Your task to perform on an android device: Do I have any events this weekend? Image 0: 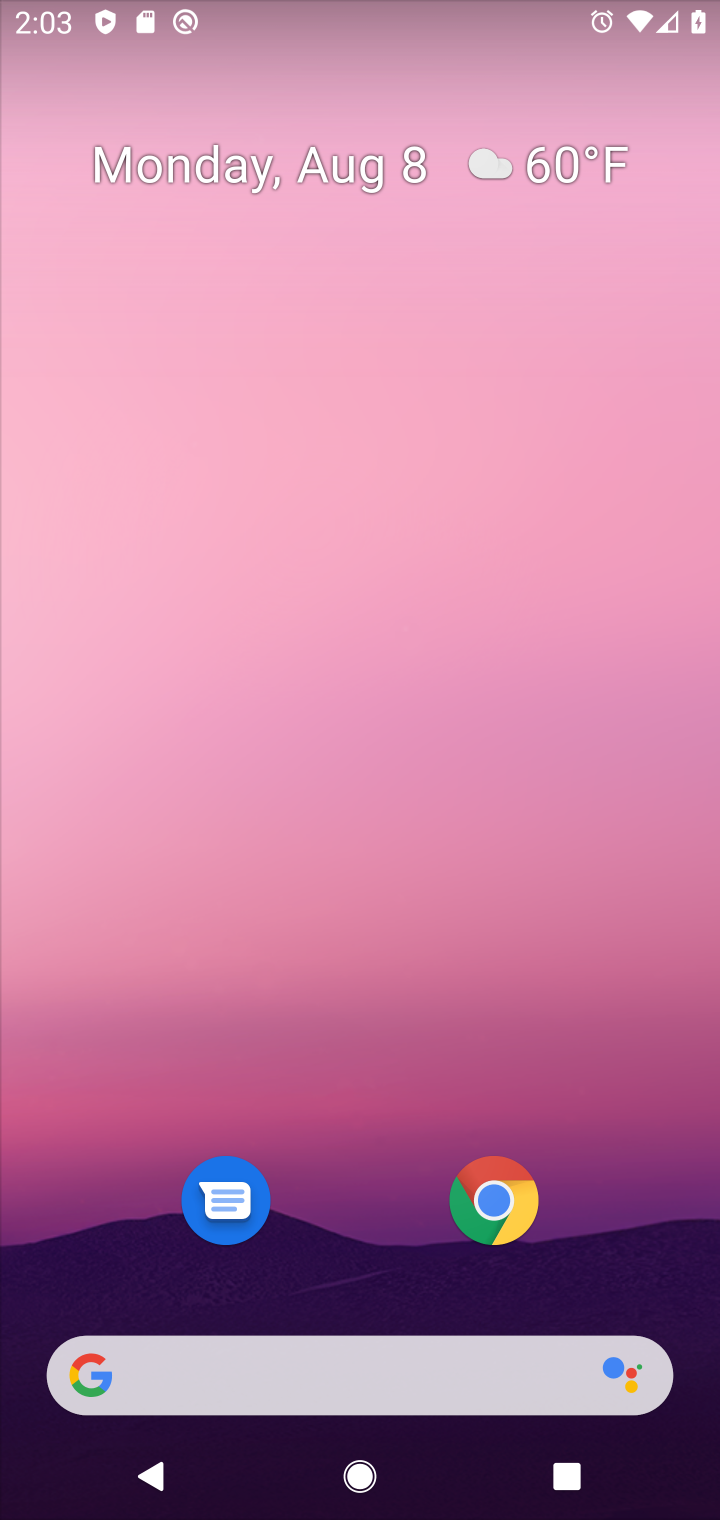
Step 0: press home button
Your task to perform on an android device: Do I have any events this weekend? Image 1: 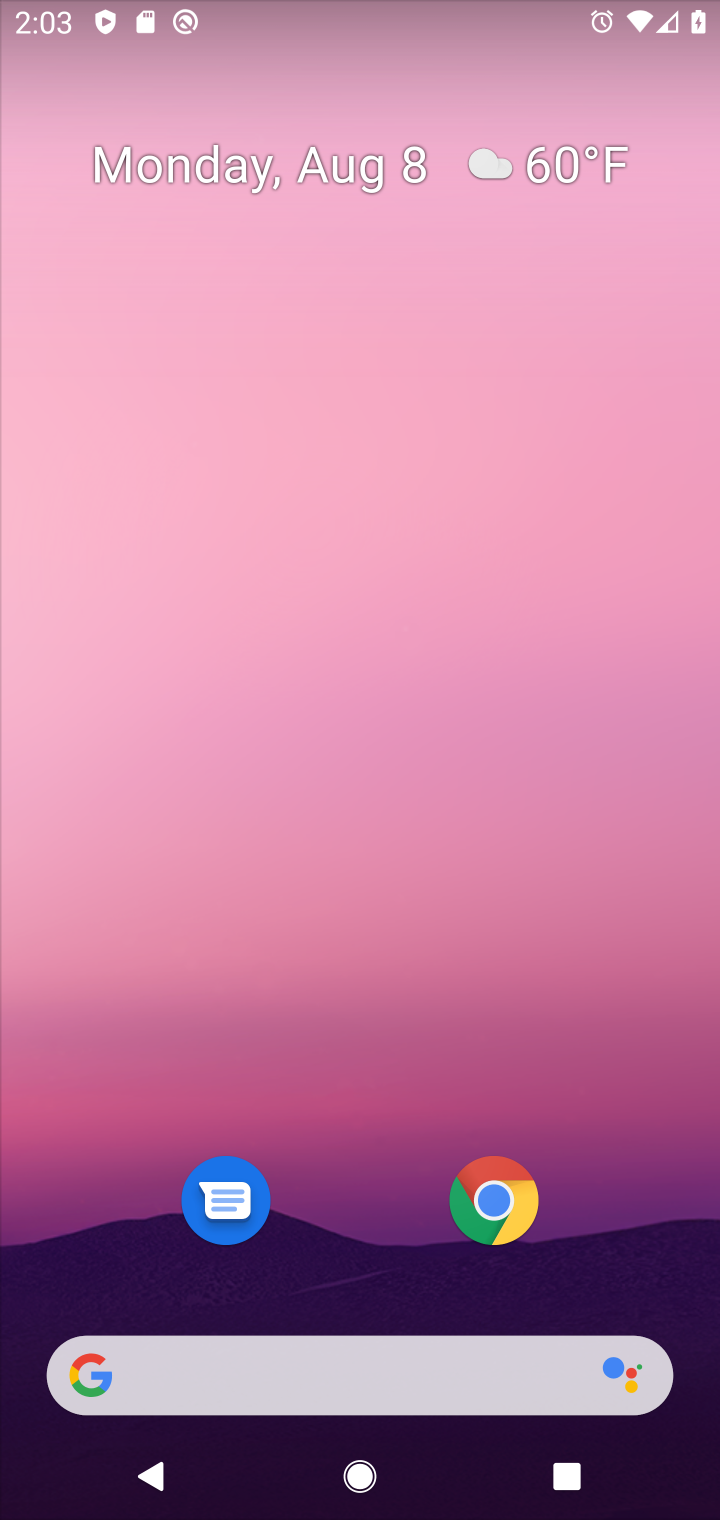
Step 1: drag from (350, 591) to (377, 297)
Your task to perform on an android device: Do I have any events this weekend? Image 2: 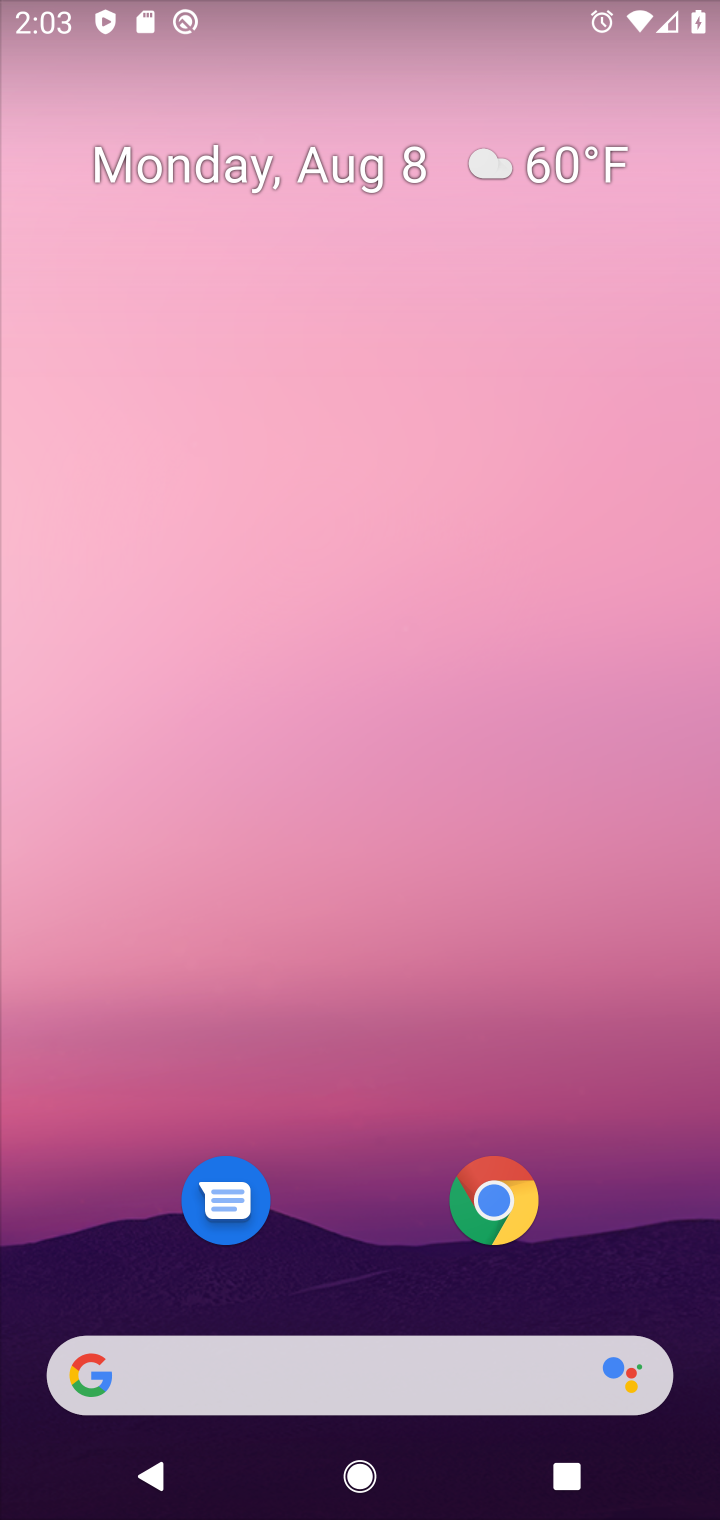
Step 2: drag from (371, 1297) to (371, 0)
Your task to perform on an android device: Do I have any events this weekend? Image 3: 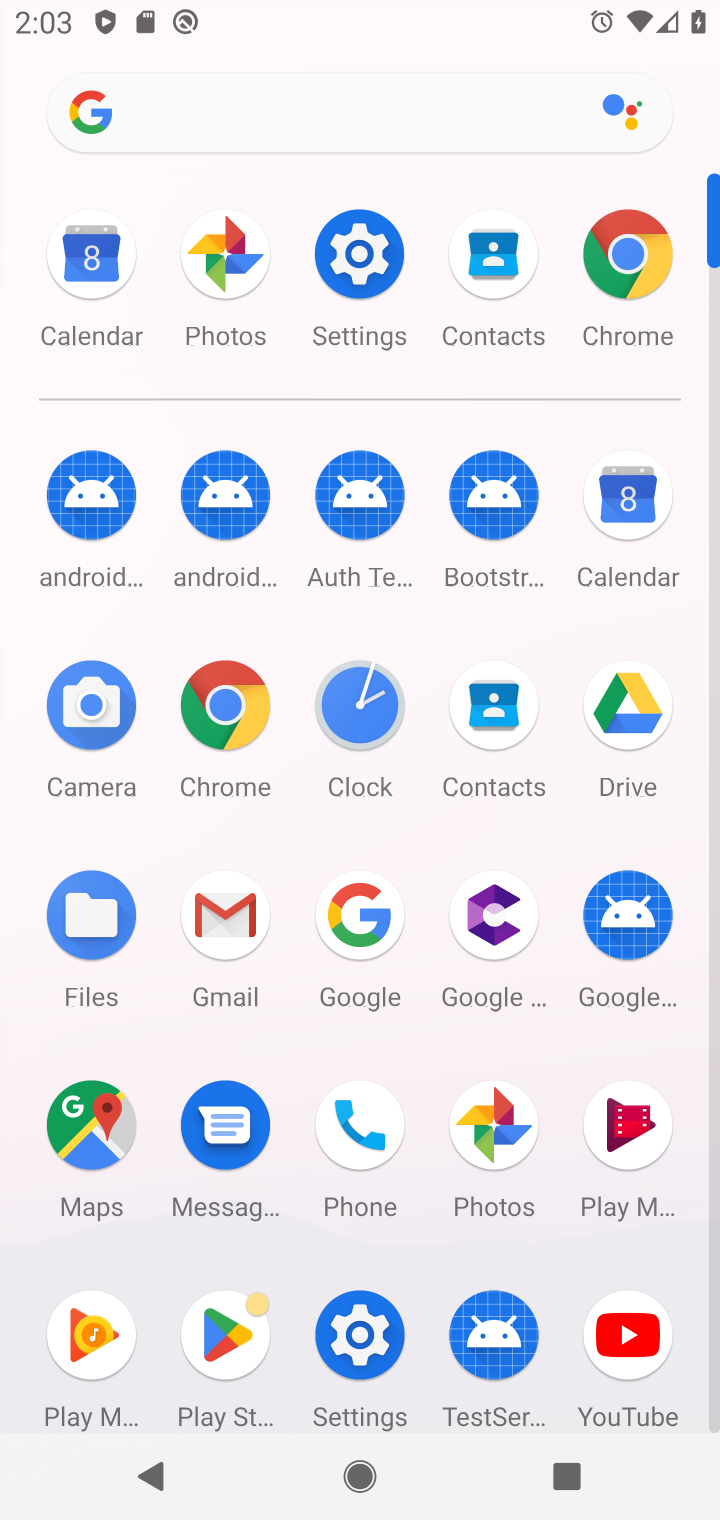
Step 3: click (633, 494)
Your task to perform on an android device: Do I have any events this weekend? Image 4: 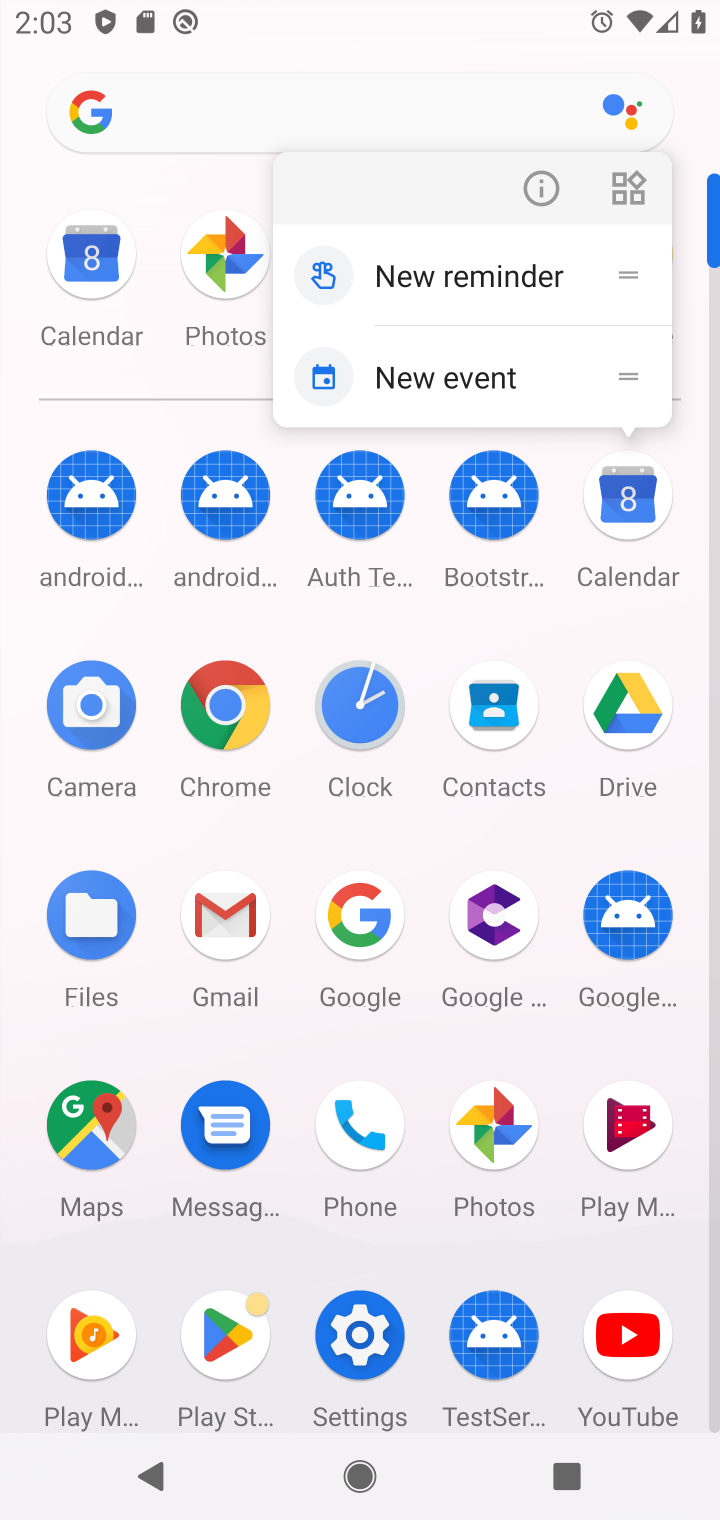
Step 4: click (619, 478)
Your task to perform on an android device: Do I have any events this weekend? Image 5: 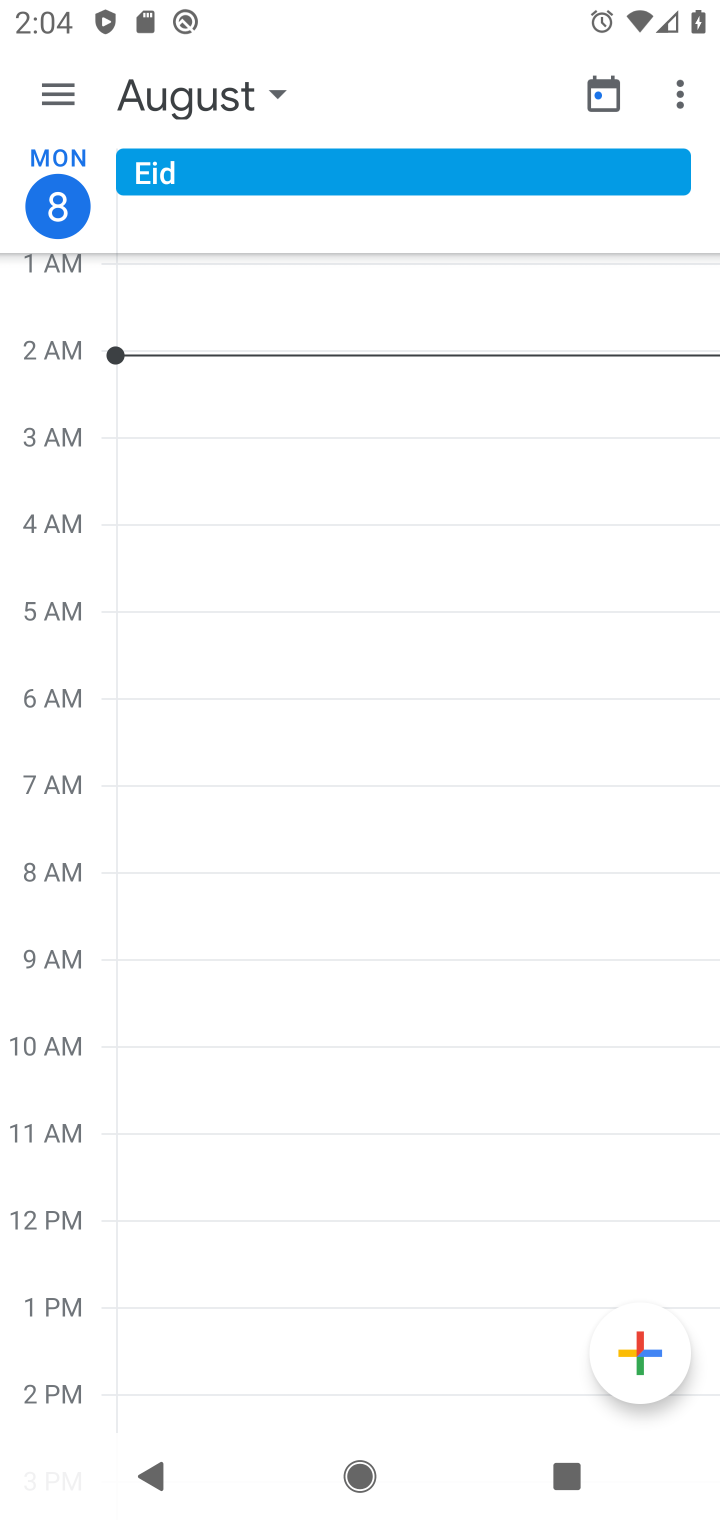
Step 5: click (32, 87)
Your task to perform on an android device: Do I have any events this weekend? Image 6: 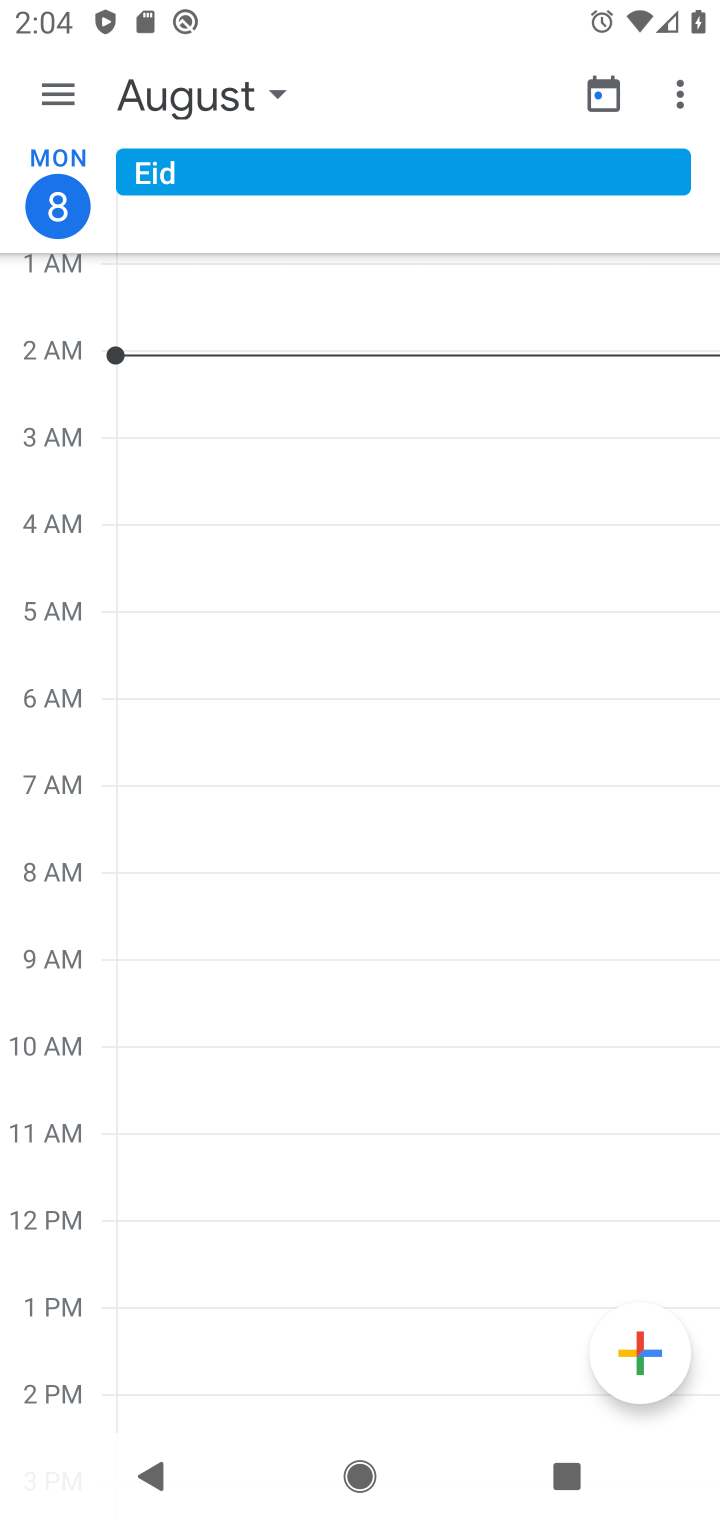
Step 6: click (76, 197)
Your task to perform on an android device: Do I have any events this weekend? Image 7: 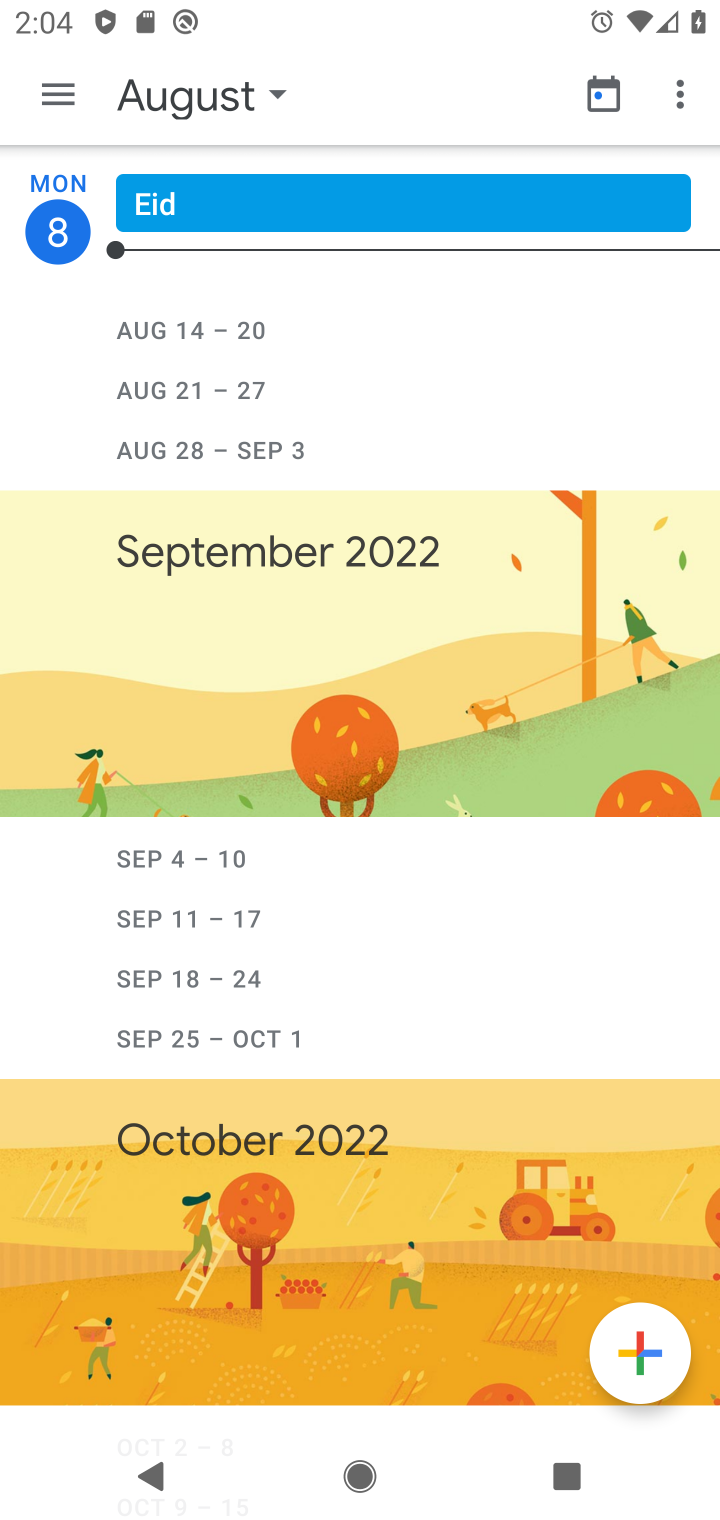
Step 7: task complete